Your task to perform on an android device: Go to Android settings Image 0: 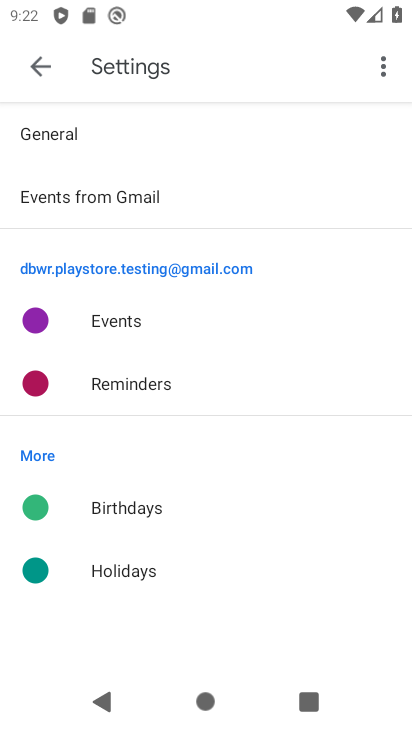
Step 0: press home button
Your task to perform on an android device: Go to Android settings Image 1: 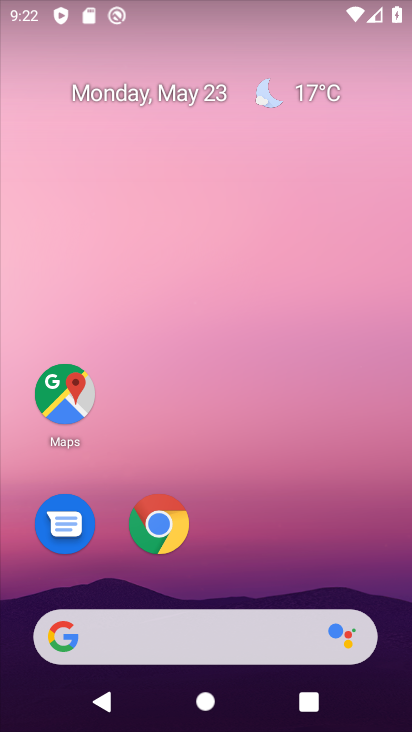
Step 1: drag from (216, 571) to (278, 94)
Your task to perform on an android device: Go to Android settings Image 2: 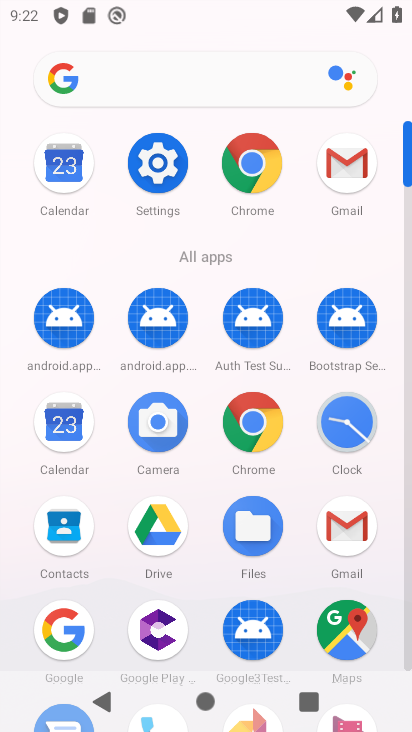
Step 2: click (151, 179)
Your task to perform on an android device: Go to Android settings Image 3: 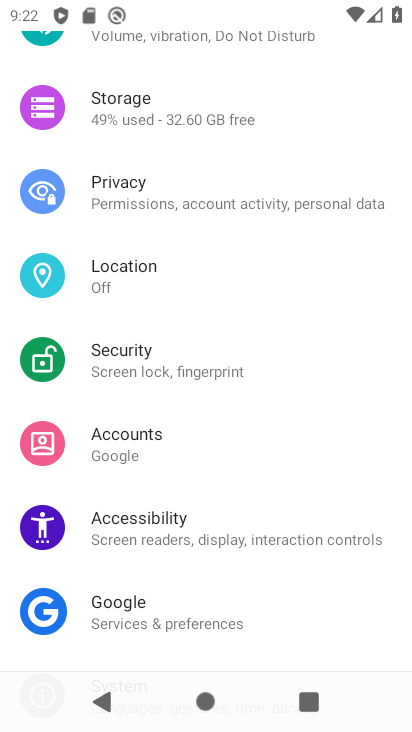
Step 3: task complete